Your task to perform on an android device: Open Google Chrome Image 0: 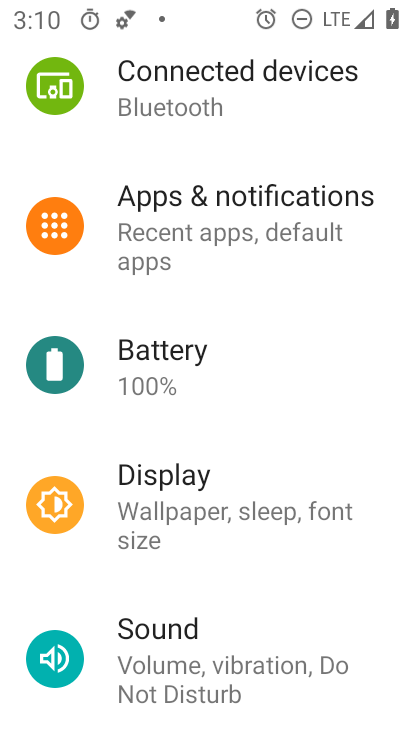
Step 0: press home button
Your task to perform on an android device: Open Google Chrome Image 1: 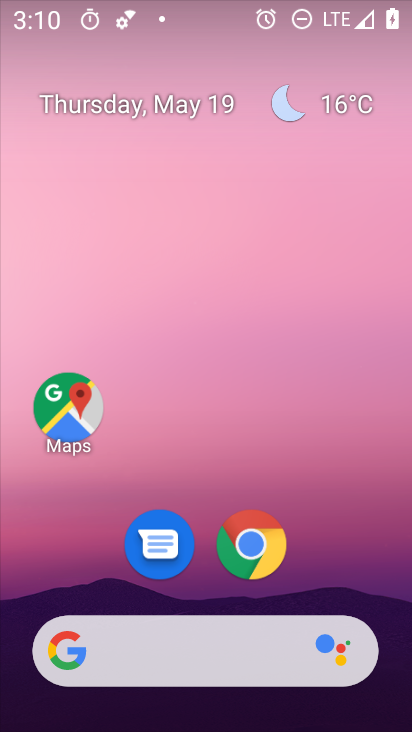
Step 1: click (247, 545)
Your task to perform on an android device: Open Google Chrome Image 2: 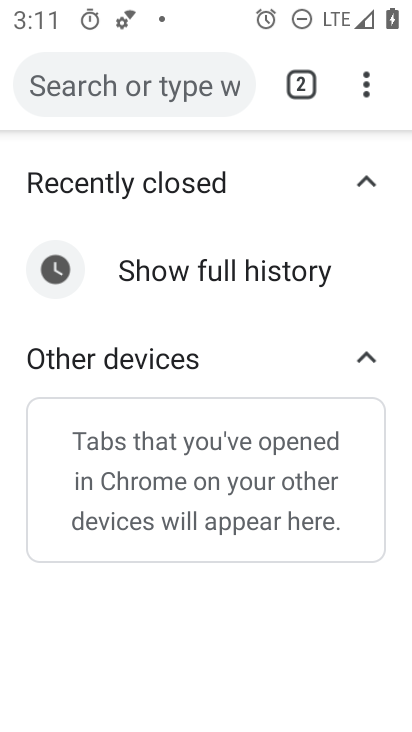
Step 2: task complete